Your task to perform on an android device: change timer sound Image 0: 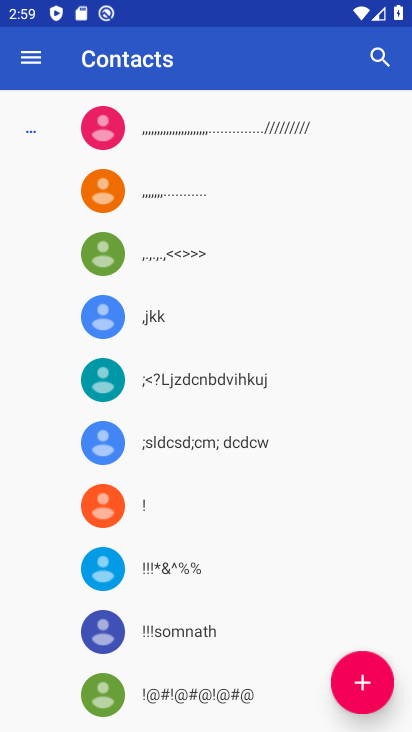
Step 0: press home button
Your task to perform on an android device: change timer sound Image 1: 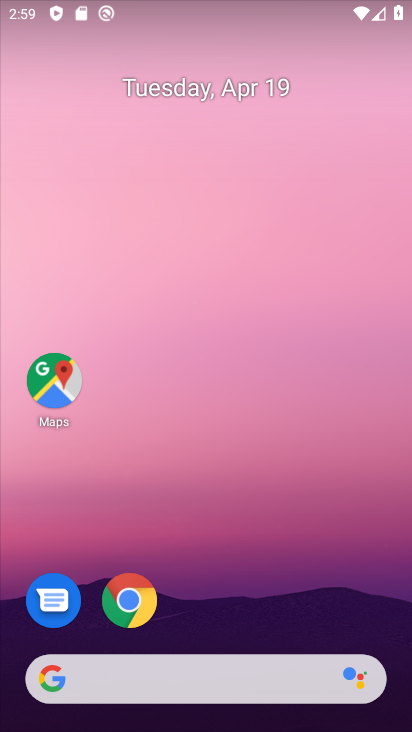
Step 1: drag from (228, 620) to (6, 33)
Your task to perform on an android device: change timer sound Image 2: 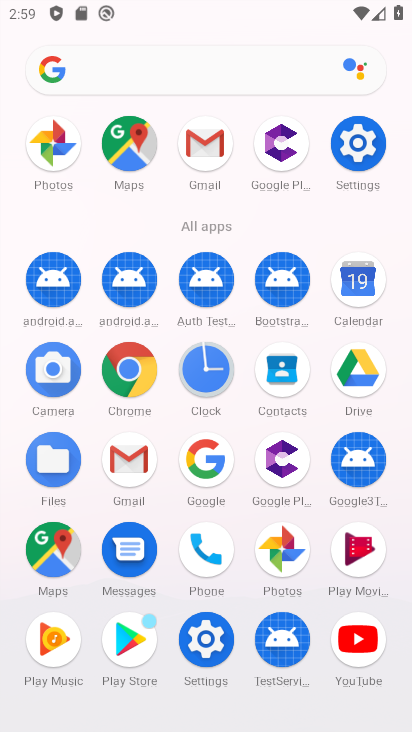
Step 2: click (199, 366)
Your task to perform on an android device: change timer sound Image 3: 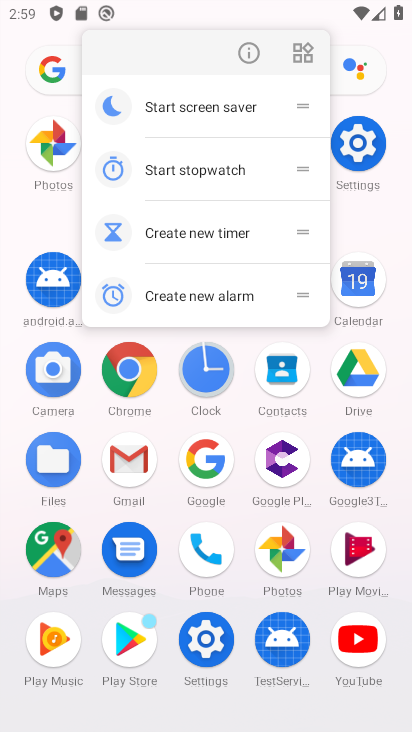
Step 3: click (207, 369)
Your task to perform on an android device: change timer sound Image 4: 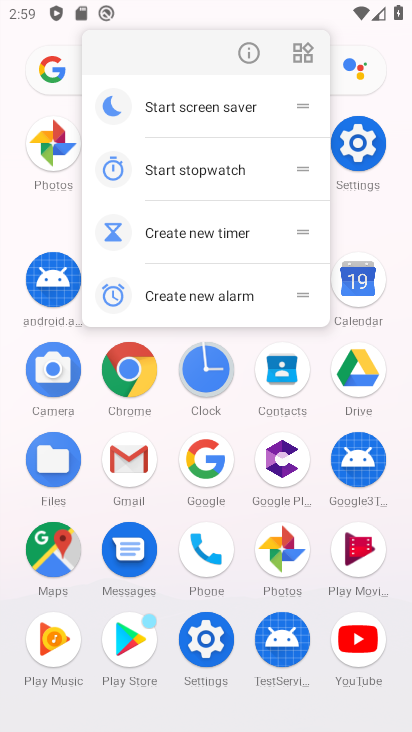
Step 4: drag from (205, 364) to (179, 394)
Your task to perform on an android device: change timer sound Image 5: 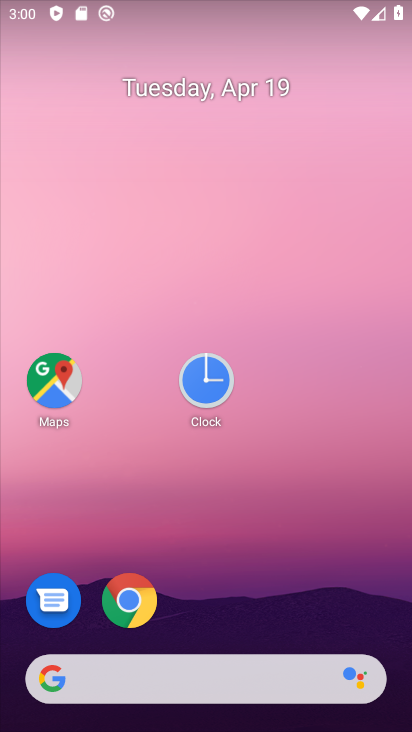
Step 5: click (212, 367)
Your task to perform on an android device: change timer sound Image 6: 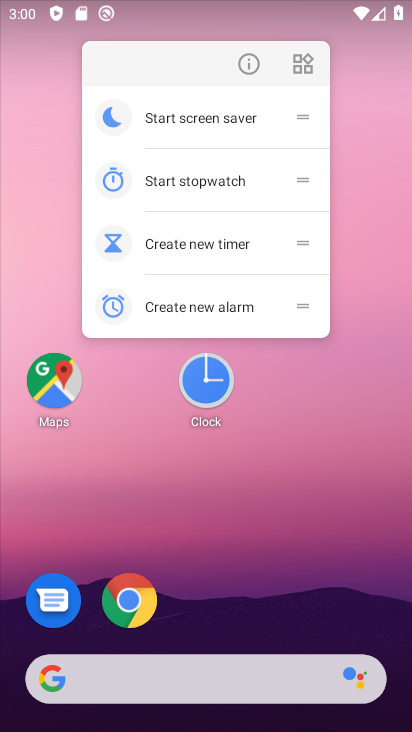
Step 6: click (214, 368)
Your task to perform on an android device: change timer sound Image 7: 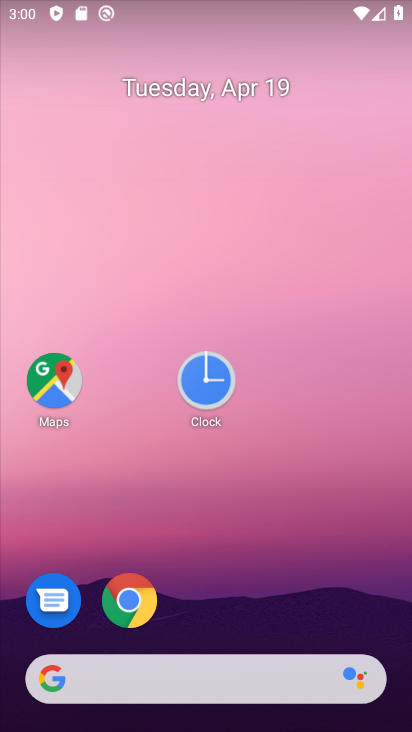
Step 7: click (209, 377)
Your task to perform on an android device: change timer sound Image 8: 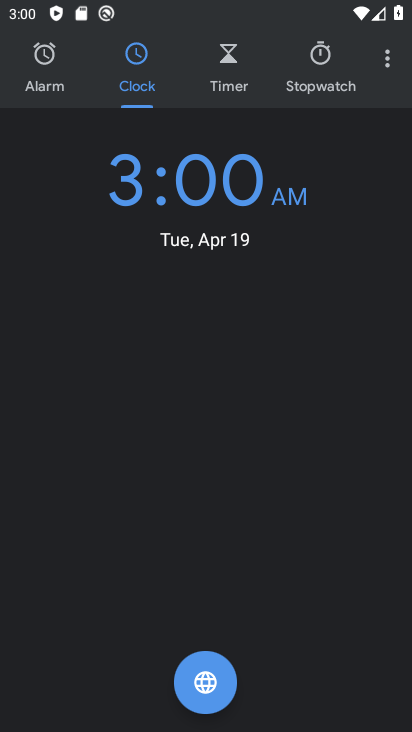
Step 8: click (384, 60)
Your task to perform on an android device: change timer sound Image 9: 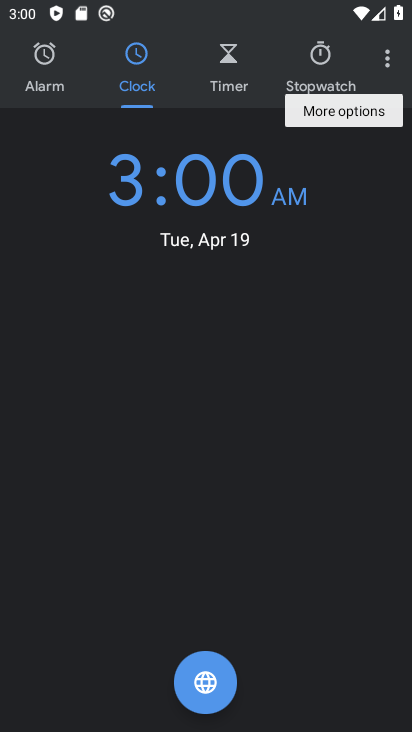
Step 9: click (383, 59)
Your task to perform on an android device: change timer sound Image 10: 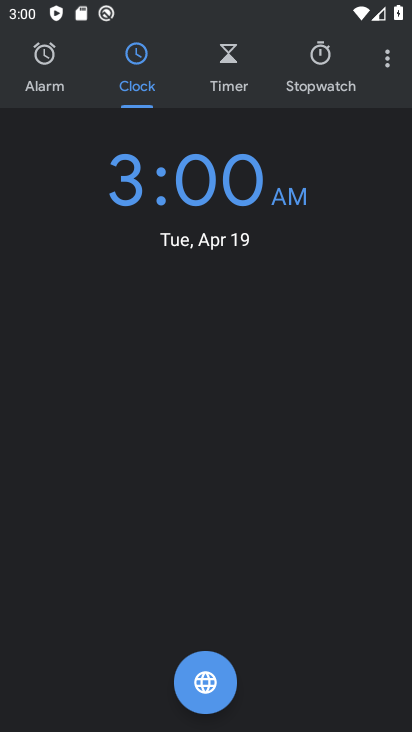
Step 10: click (381, 51)
Your task to perform on an android device: change timer sound Image 11: 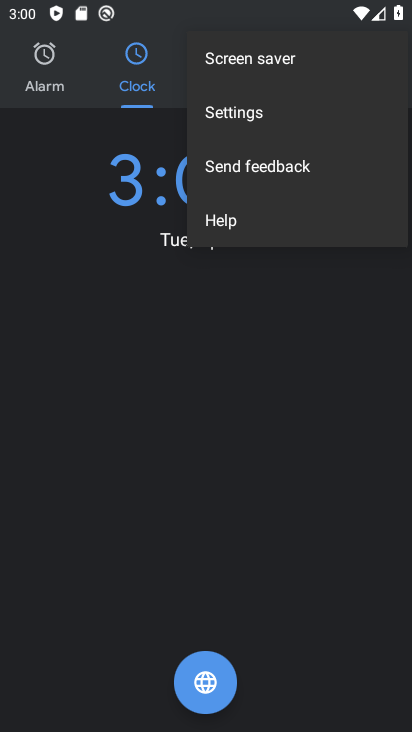
Step 11: click (241, 113)
Your task to perform on an android device: change timer sound Image 12: 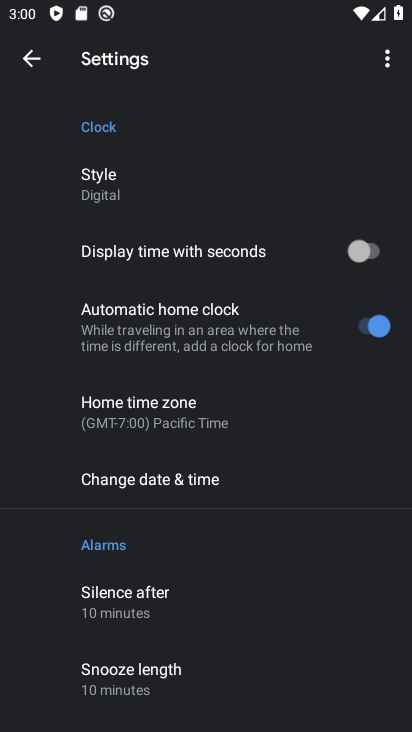
Step 12: drag from (233, 564) to (291, 209)
Your task to perform on an android device: change timer sound Image 13: 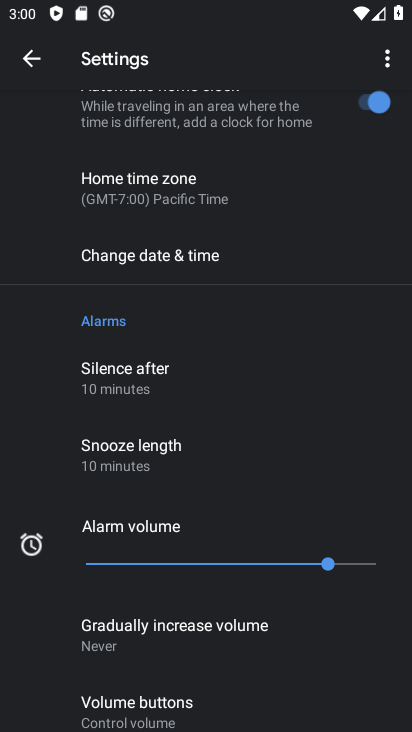
Step 13: drag from (211, 443) to (211, 308)
Your task to perform on an android device: change timer sound Image 14: 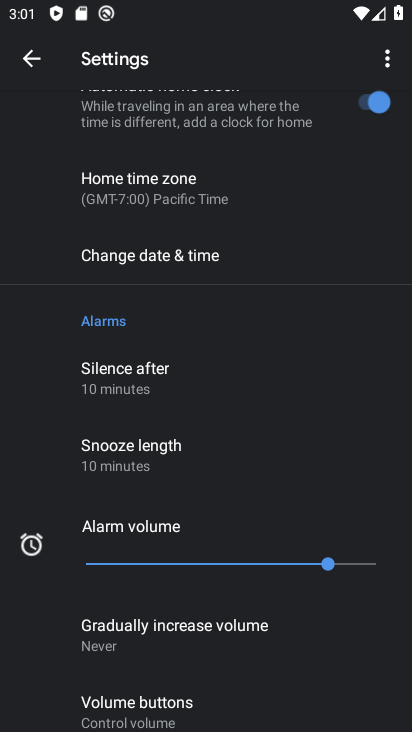
Step 14: drag from (156, 405) to (144, 191)
Your task to perform on an android device: change timer sound Image 15: 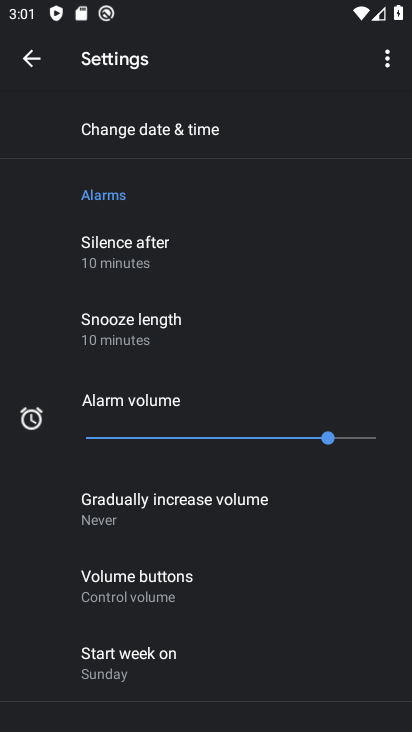
Step 15: drag from (196, 553) to (184, 271)
Your task to perform on an android device: change timer sound Image 16: 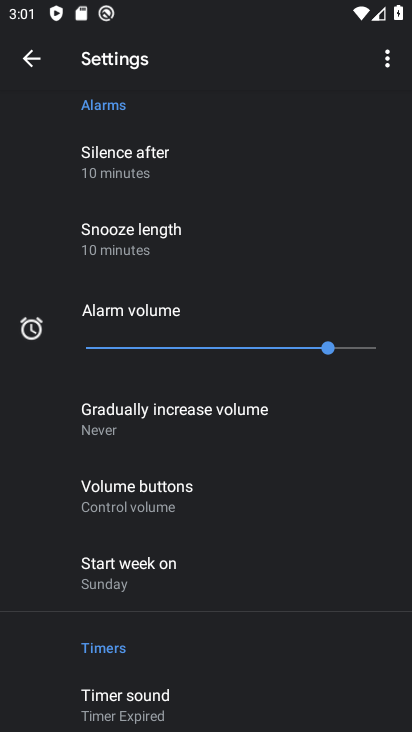
Step 16: drag from (186, 653) to (153, 209)
Your task to perform on an android device: change timer sound Image 17: 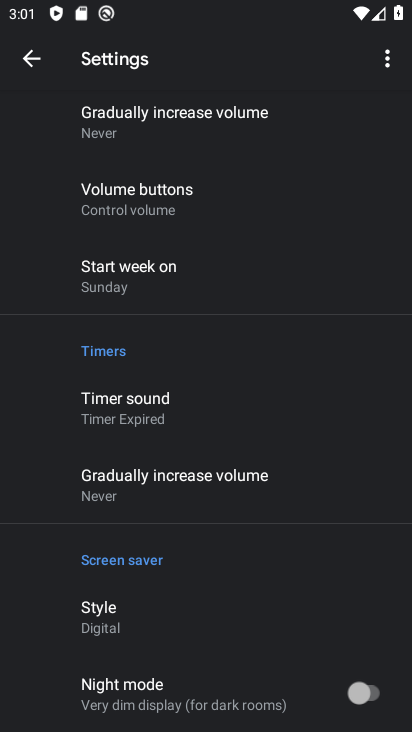
Step 17: click (110, 409)
Your task to perform on an android device: change timer sound Image 18: 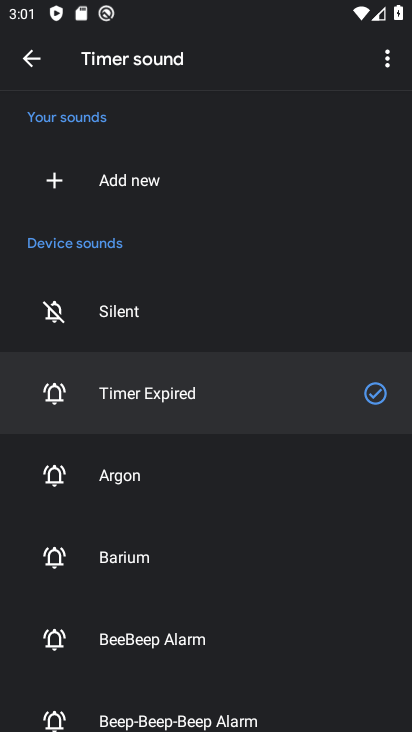
Step 18: click (115, 472)
Your task to perform on an android device: change timer sound Image 19: 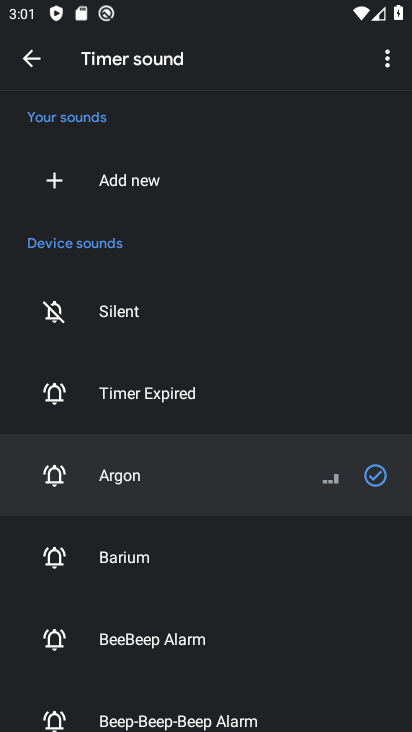
Step 19: task complete